Your task to perform on an android device: change the upload size in google photos Image 0: 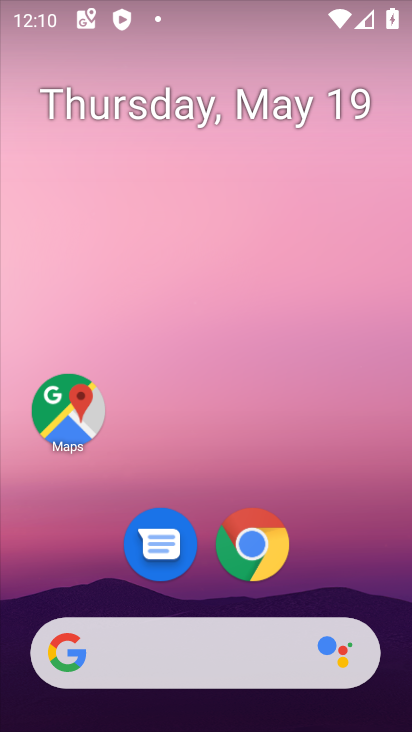
Step 0: drag from (194, 602) to (167, 2)
Your task to perform on an android device: change the upload size in google photos Image 1: 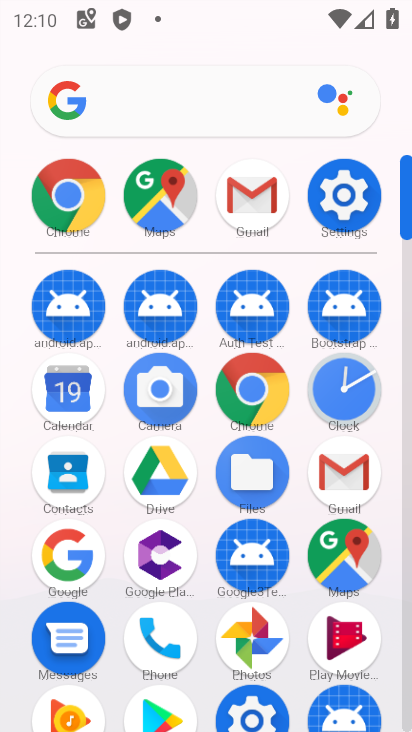
Step 1: click (256, 644)
Your task to perform on an android device: change the upload size in google photos Image 2: 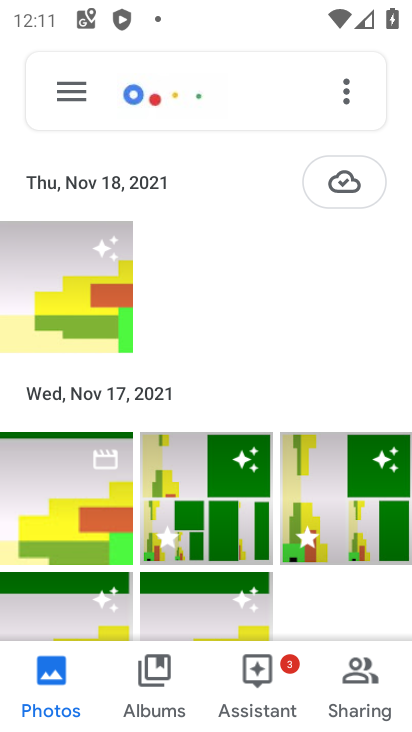
Step 2: click (82, 89)
Your task to perform on an android device: change the upload size in google photos Image 3: 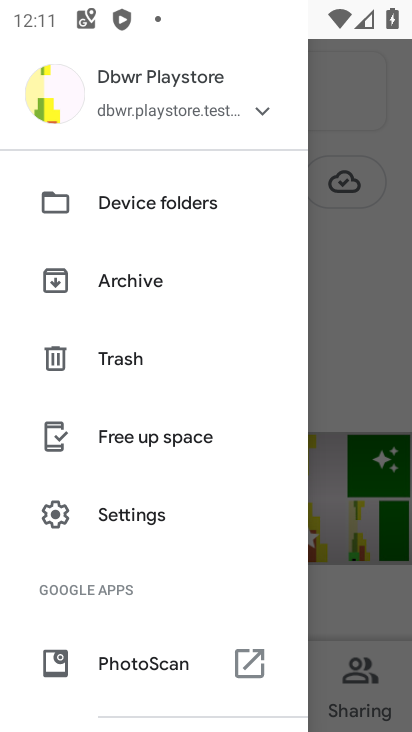
Step 3: drag from (199, 645) to (210, 723)
Your task to perform on an android device: change the upload size in google photos Image 4: 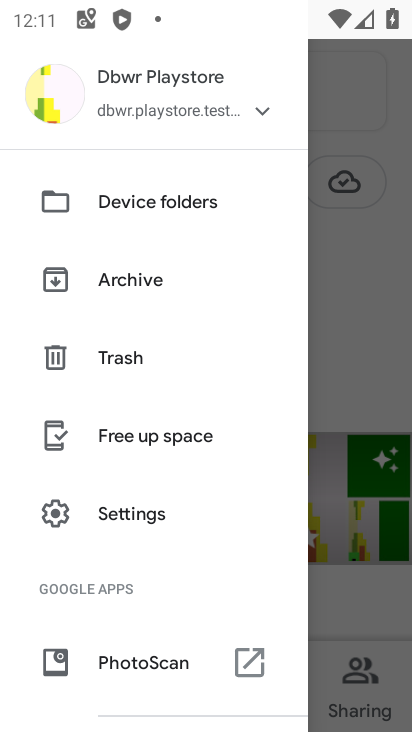
Step 4: click (158, 503)
Your task to perform on an android device: change the upload size in google photos Image 5: 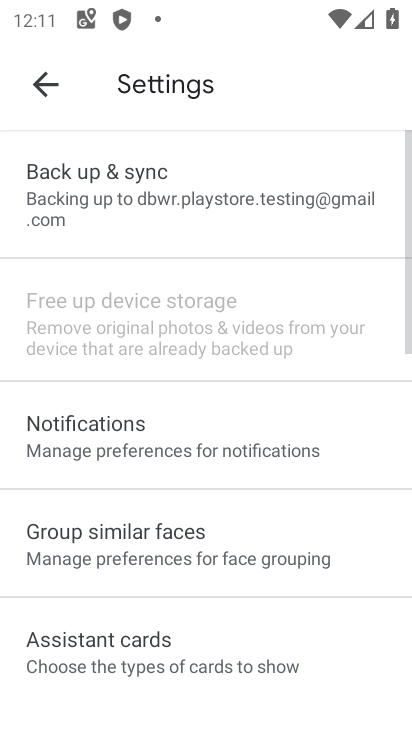
Step 5: click (153, 211)
Your task to perform on an android device: change the upload size in google photos Image 6: 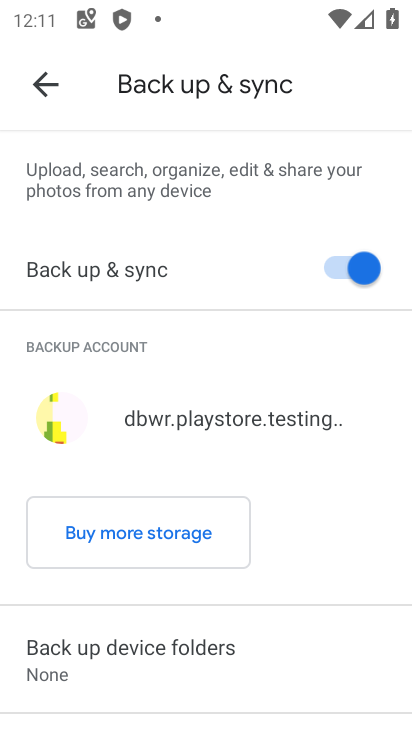
Step 6: task complete